Your task to perform on an android device: change notification settings in the gmail app Image 0: 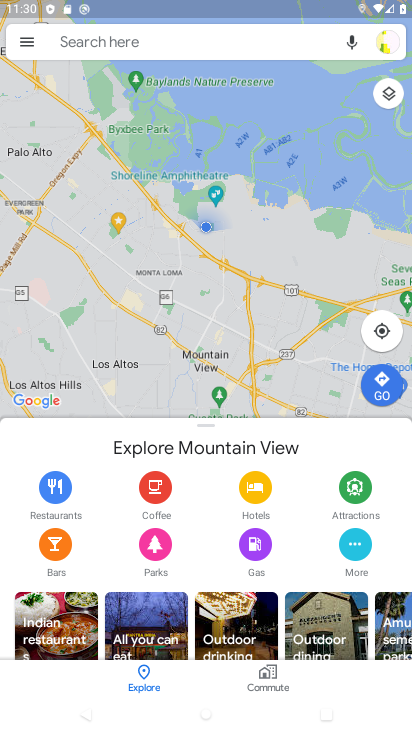
Step 0: press home button
Your task to perform on an android device: change notification settings in the gmail app Image 1: 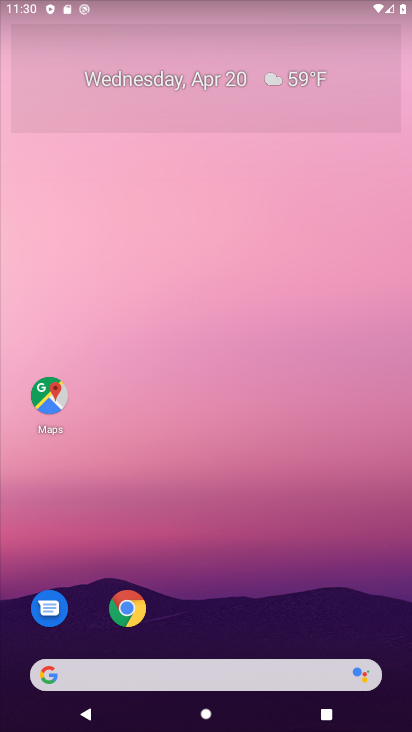
Step 1: drag from (227, 601) to (202, 155)
Your task to perform on an android device: change notification settings in the gmail app Image 2: 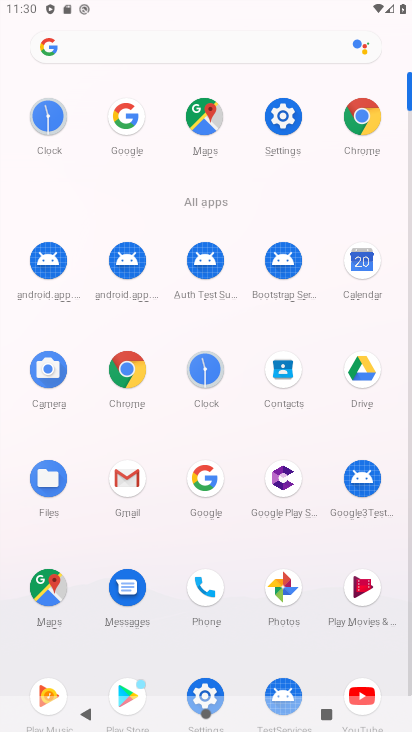
Step 2: click (124, 479)
Your task to perform on an android device: change notification settings in the gmail app Image 3: 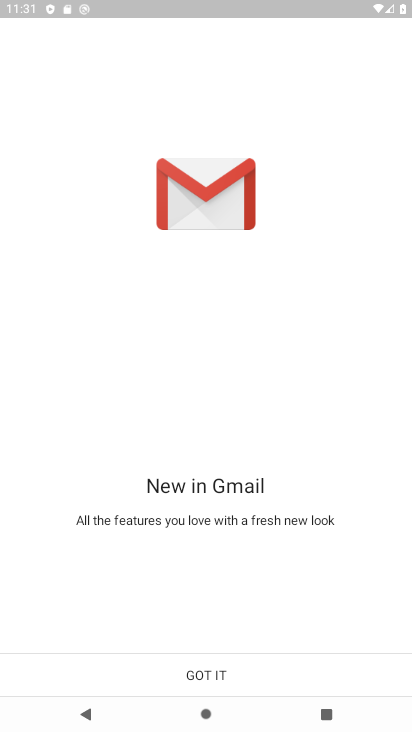
Step 3: click (241, 679)
Your task to perform on an android device: change notification settings in the gmail app Image 4: 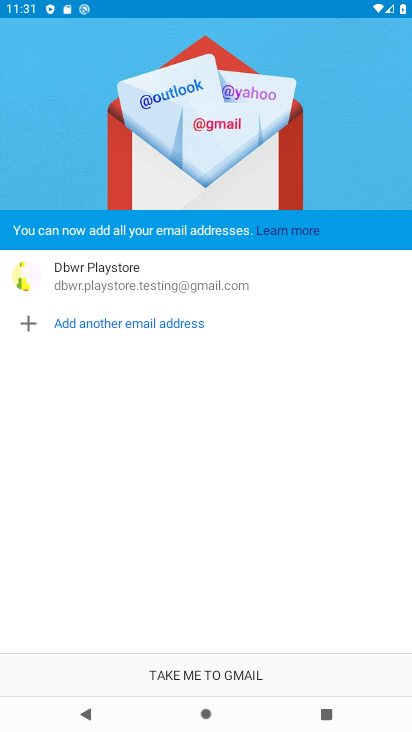
Step 4: click (241, 679)
Your task to perform on an android device: change notification settings in the gmail app Image 5: 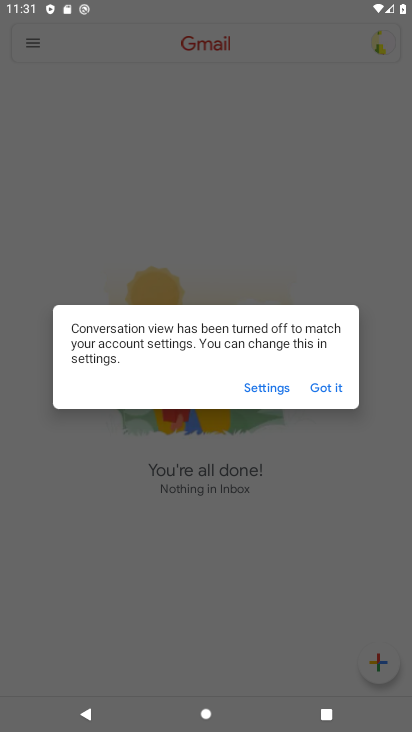
Step 5: click (330, 395)
Your task to perform on an android device: change notification settings in the gmail app Image 6: 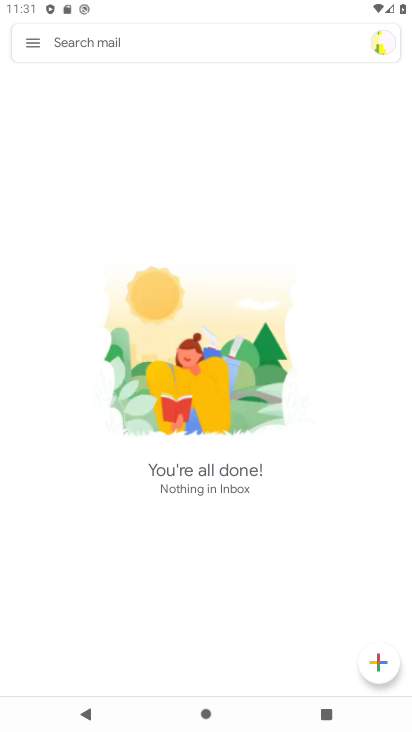
Step 6: click (31, 40)
Your task to perform on an android device: change notification settings in the gmail app Image 7: 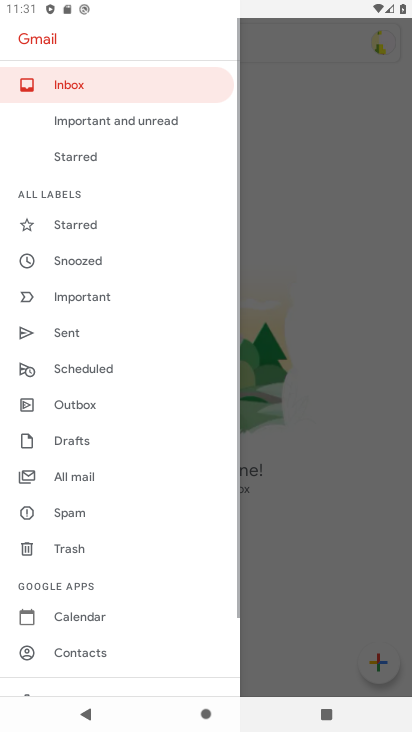
Step 7: drag from (121, 602) to (123, 271)
Your task to perform on an android device: change notification settings in the gmail app Image 8: 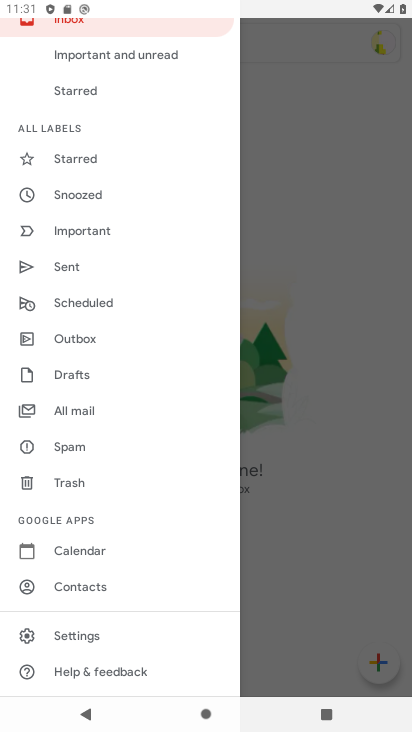
Step 8: click (89, 634)
Your task to perform on an android device: change notification settings in the gmail app Image 9: 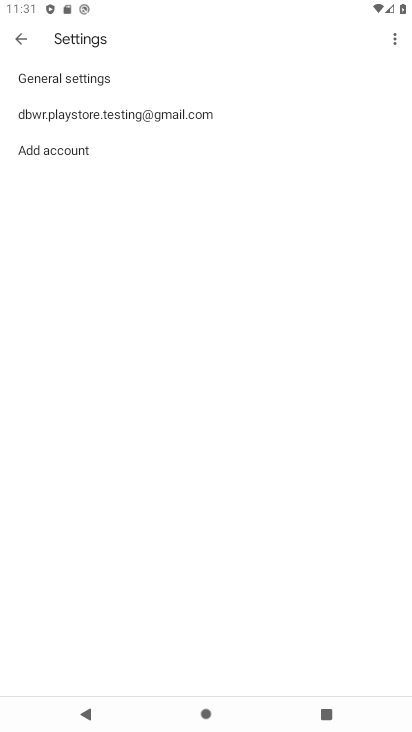
Step 9: click (151, 115)
Your task to perform on an android device: change notification settings in the gmail app Image 10: 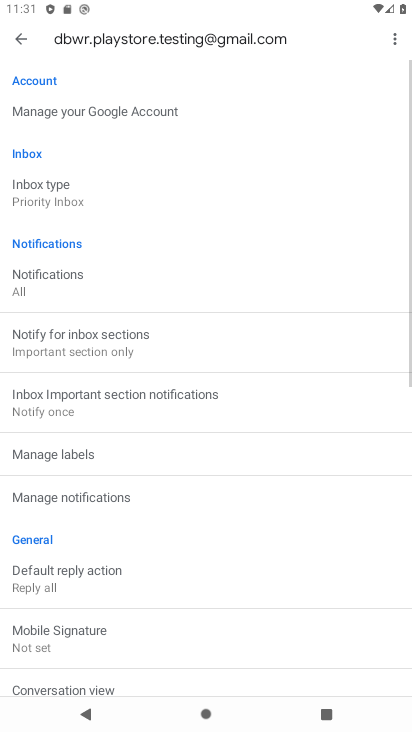
Step 10: drag from (239, 515) to (239, 205)
Your task to perform on an android device: change notification settings in the gmail app Image 11: 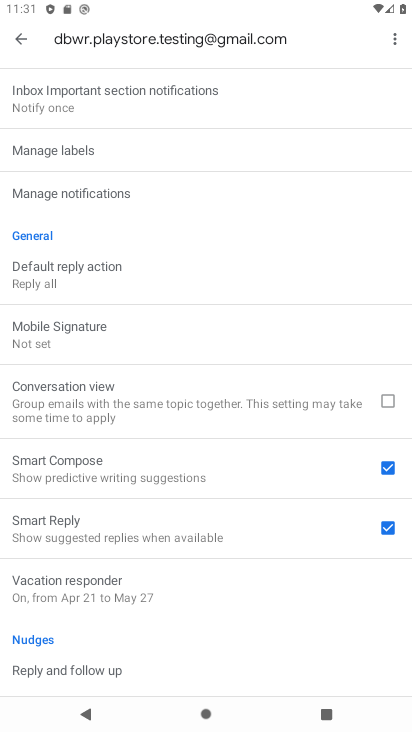
Step 11: drag from (114, 242) to (166, 509)
Your task to perform on an android device: change notification settings in the gmail app Image 12: 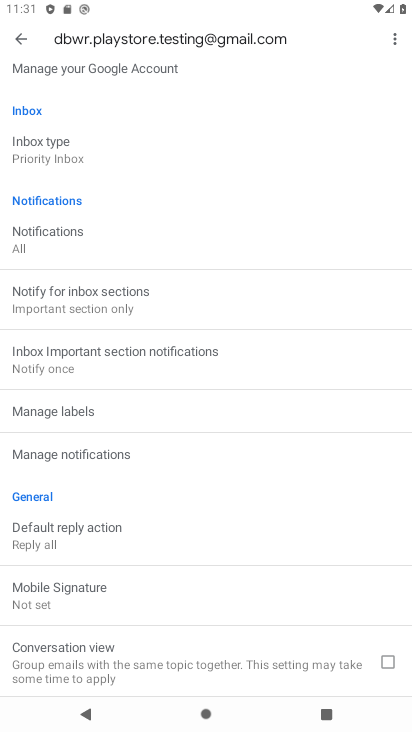
Step 12: click (50, 245)
Your task to perform on an android device: change notification settings in the gmail app Image 13: 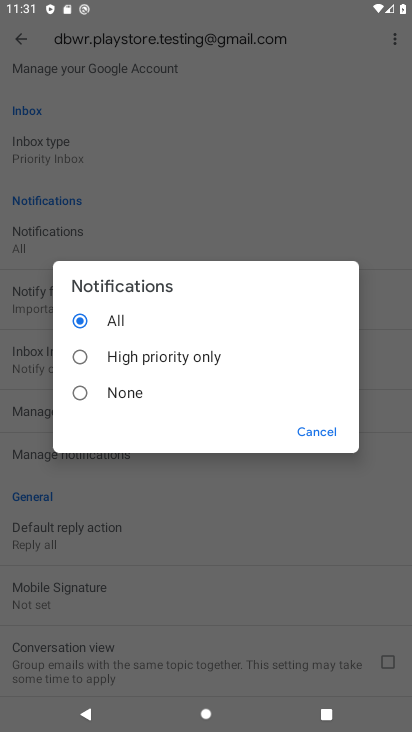
Step 13: click (111, 400)
Your task to perform on an android device: change notification settings in the gmail app Image 14: 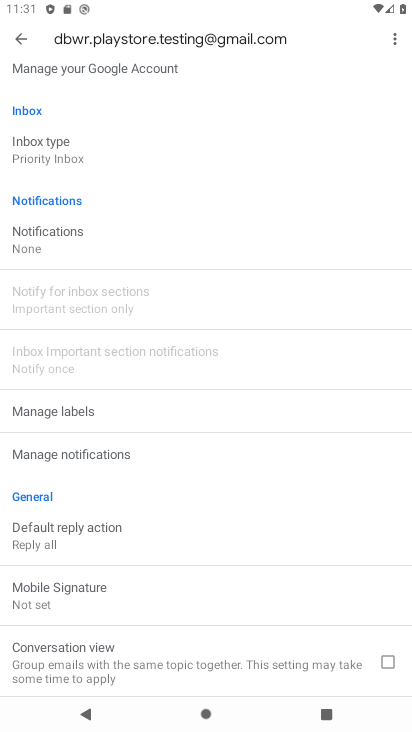
Step 14: task complete